Your task to perform on an android device: turn on the 24-hour format for clock Image 0: 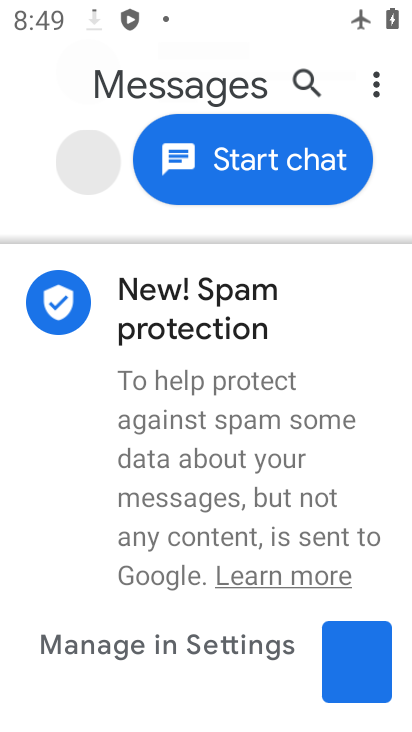
Step 0: press home button
Your task to perform on an android device: turn on the 24-hour format for clock Image 1: 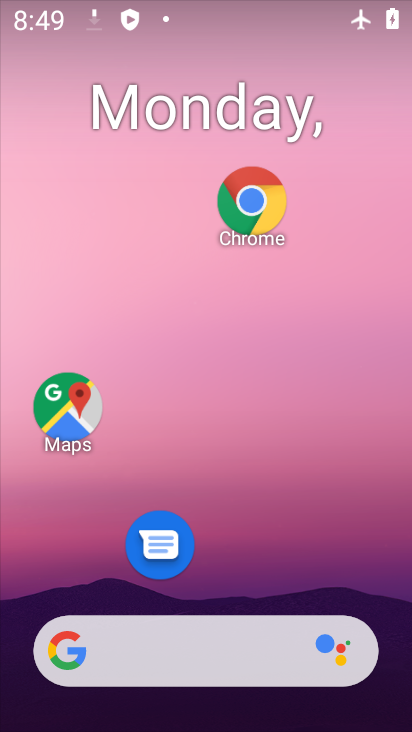
Step 1: drag from (251, 584) to (237, 178)
Your task to perform on an android device: turn on the 24-hour format for clock Image 2: 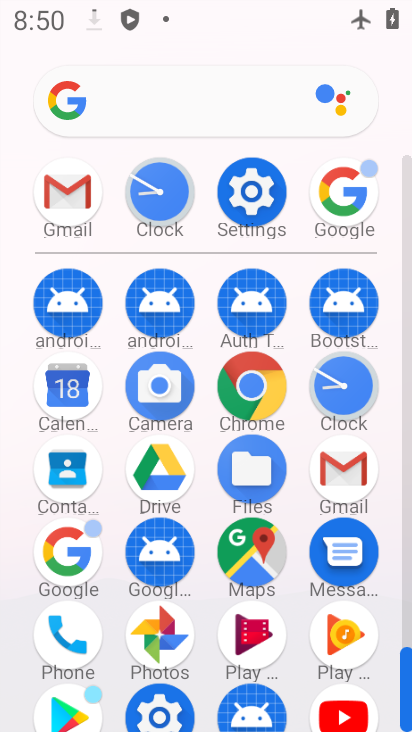
Step 2: click (326, 384)
Your task to perform on an android device: turn on the 24-hour format for clock Image 3: 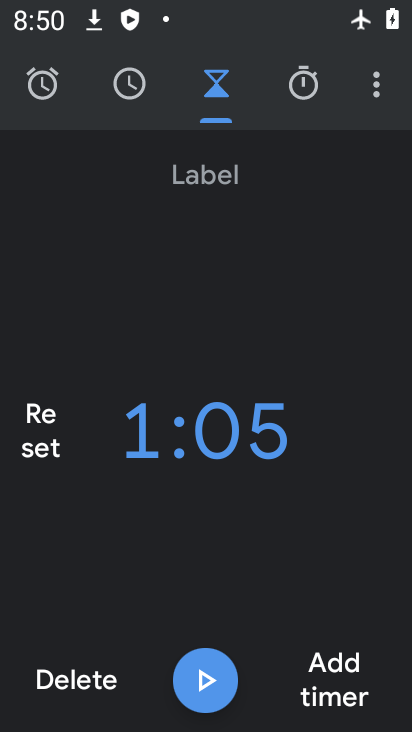
Step 3: click (373, 86)
Your task to perform on an android device: turn on the 24-hour format for clock Image 4: 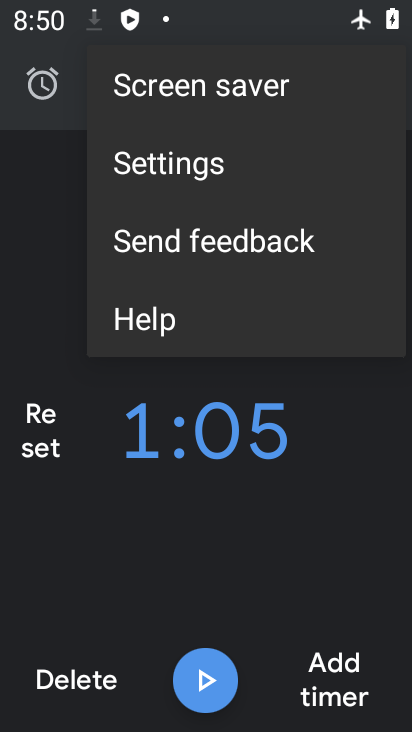
Step 4: click (231, 160)
Your task to perform on an android device: turn on the 24-hour format for clock Image 5: 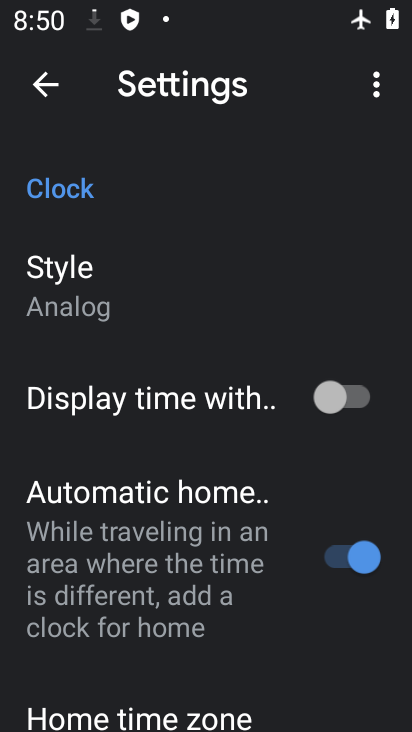
Step 5: click (370, 86)
Your task to perform on an android device: turn on the 24-hour format for clock Image 6: 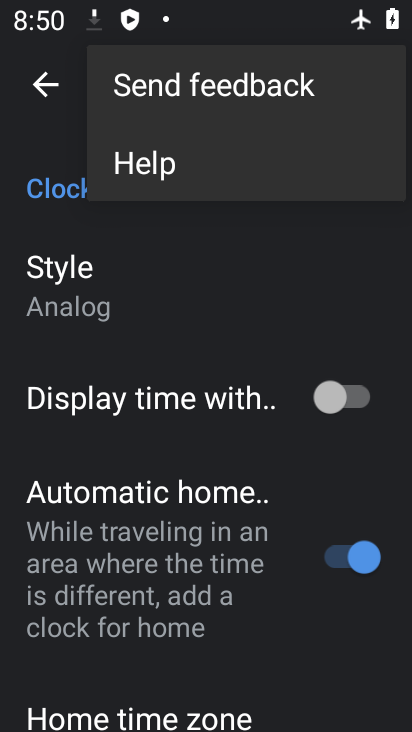
Step 6: drag from (160, 533) to (198, 231)
Your task to perform on an android device: turn on the 24-hour format for clock Image 7: 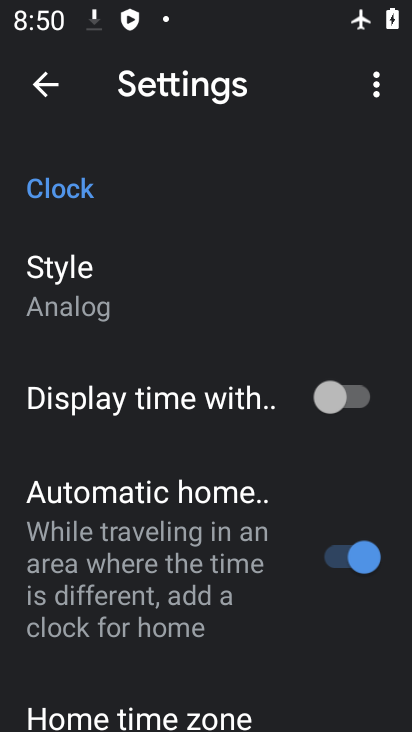
Step 7: drag from (205, 261) to (232, 170)
Your task to perform on an android device: turn on the 24-hour format for clock Image 8: 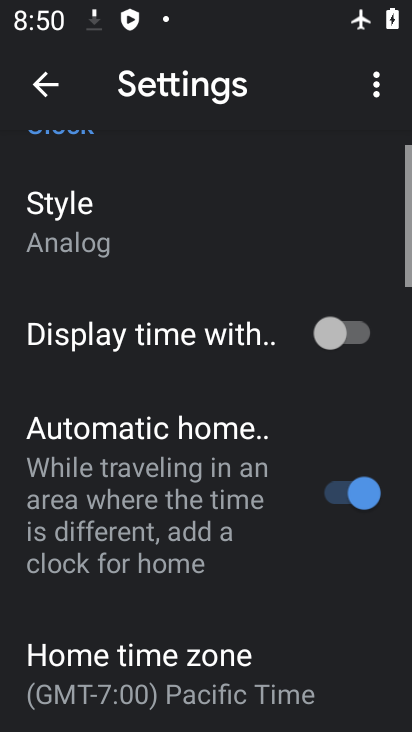
Step 8: drag from (237, 554) to (240, 256)
Your task to perform on an android device: turn on the 24-hour format for clock Image 9: 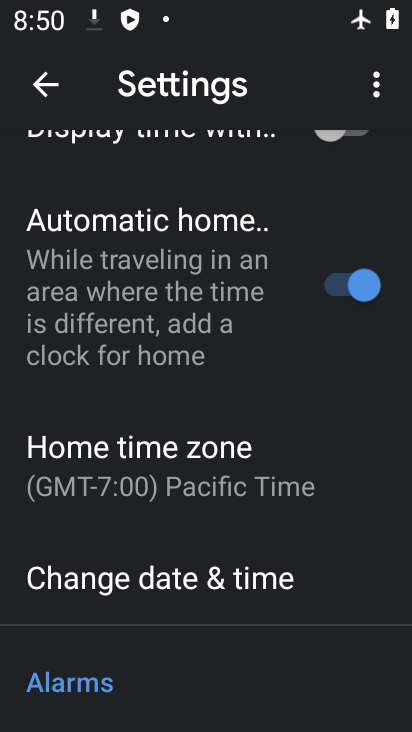
Step 9: click (196, 580)
Your task to perform on an android device: turn on the 24-hour format for clock Image 10: 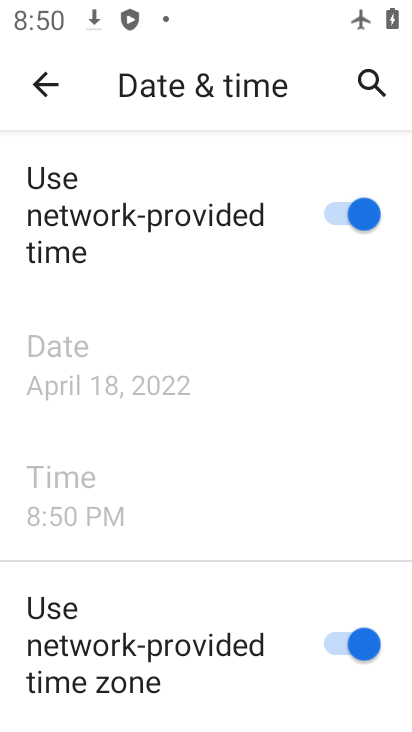
Step 10: drag from (209, 624) to (222, 343)
Your task to perform on an android device: turn on the 24-hour format for clock Image 11: 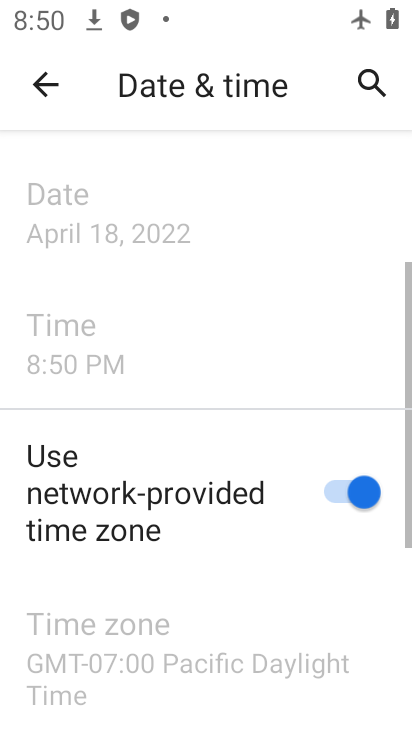
Step 11: drag from (251, 639) to (239, 340)
Your task to perform on an android device: turn on the 24-hour format for clock Image 12: 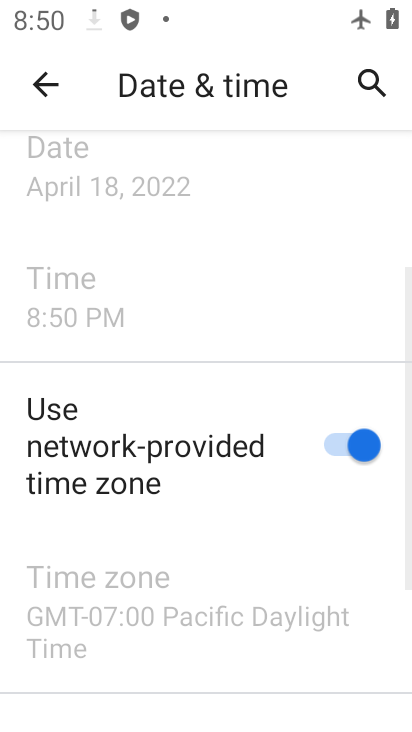
Step 12: drag from (214, 652) to (210, 340)
Your task to perform on an android device: turn on the 24-hour format for clock Image 13: 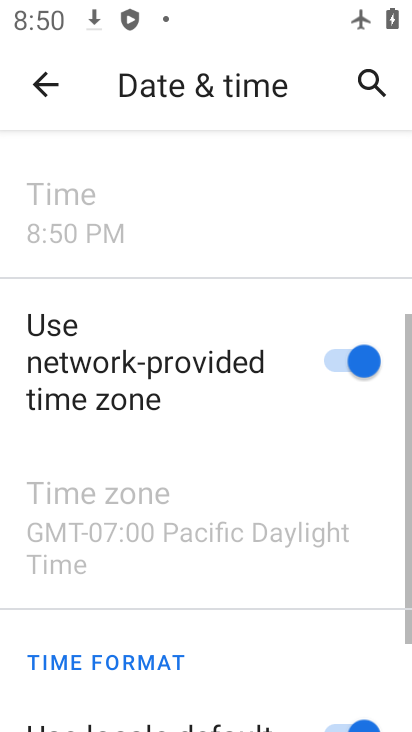
Step 13: drag from (217, 631) to (211, 382)
Your task to perform on an android device: turn on the 24-hour format for clock Image 14: 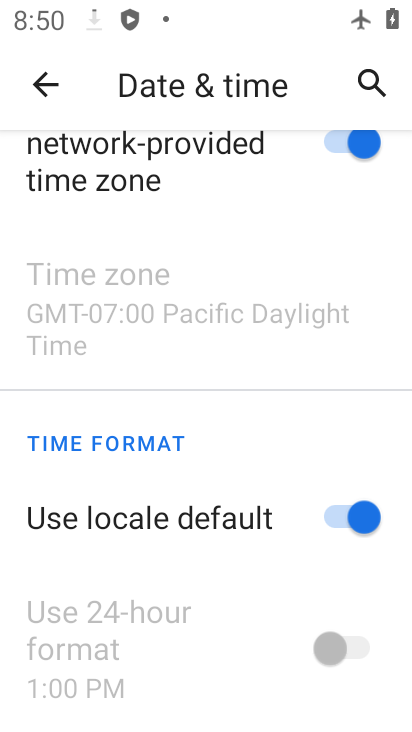
Step 14: click (333, 519)
Your task to perform on an android device: turn on the 24-hour format for clock Image 15: 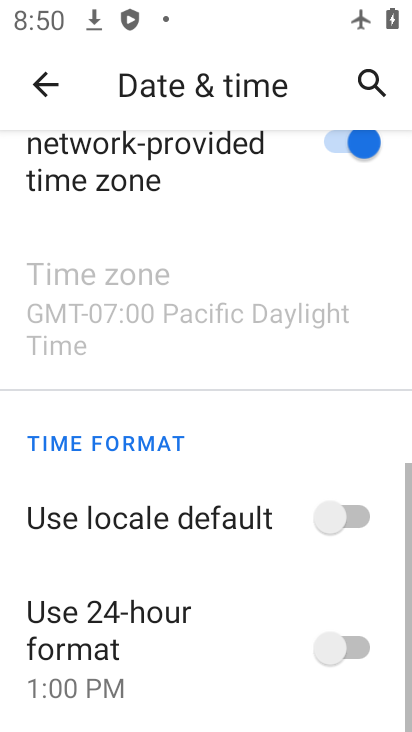
Step 15: click (351, 632)
Your task to perform on an android device: turn on the 24-hour format for clock Image 16: 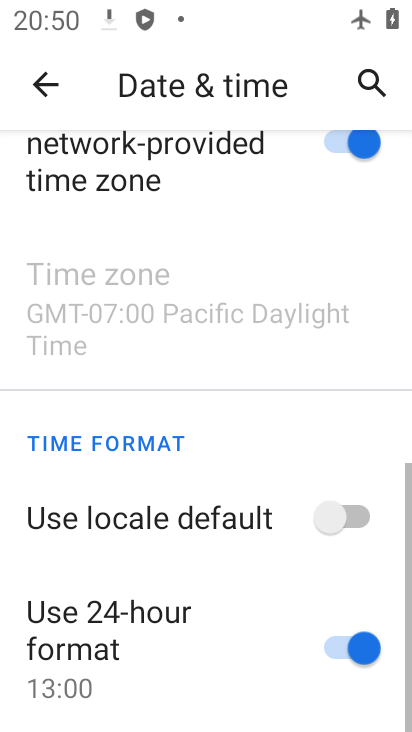
Step 16: task complete